Your task to perform on an android device: set the stopwatch Image 0: 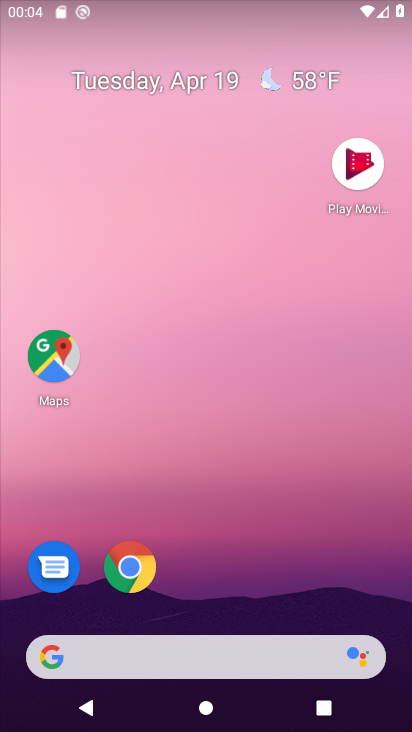
Step 0: drag from (192, 582) to (220, 175)
Your task to perform on an android device: set the stopwatch Image 1: 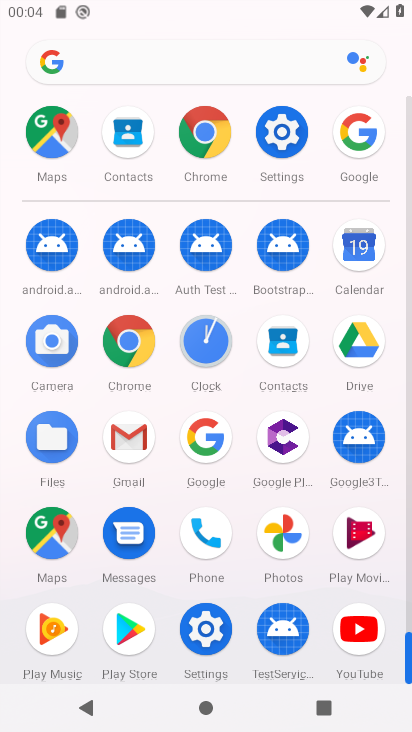
Step 1: click (203, 624)
Your task to perform on an android device: set the stopwatch Image 2: 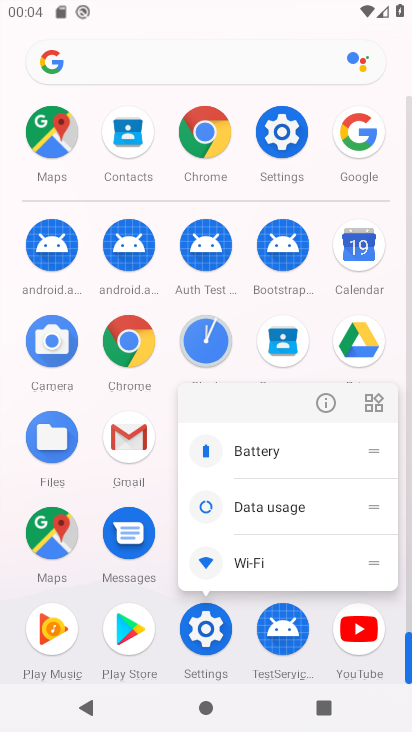
Step 2: click (211, 328)
Your task to perform on an android device: set the stopwatch Image 3: 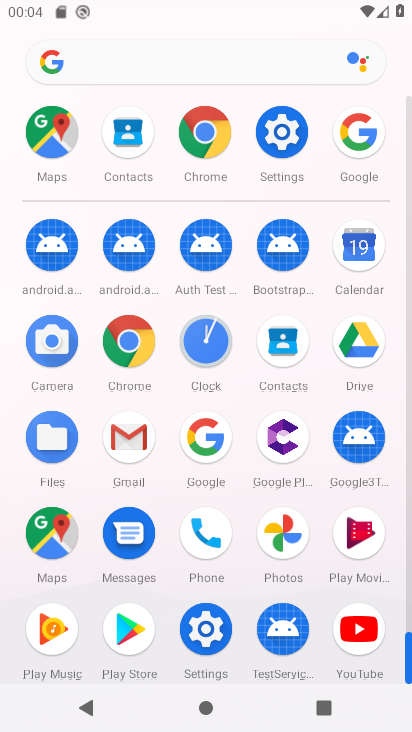
Step 3: click (202, 341)
Your task to perform on an android device: set the stopwatch Image 4: 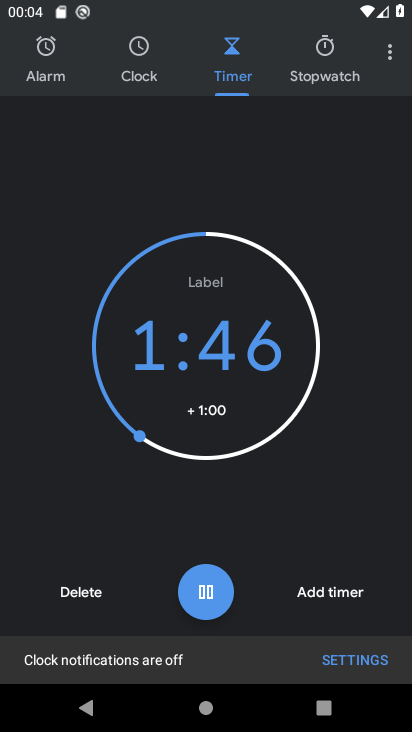
Step 4: click (323, 54)
Your task to perform on an android device: set the stopwatch Image 5: 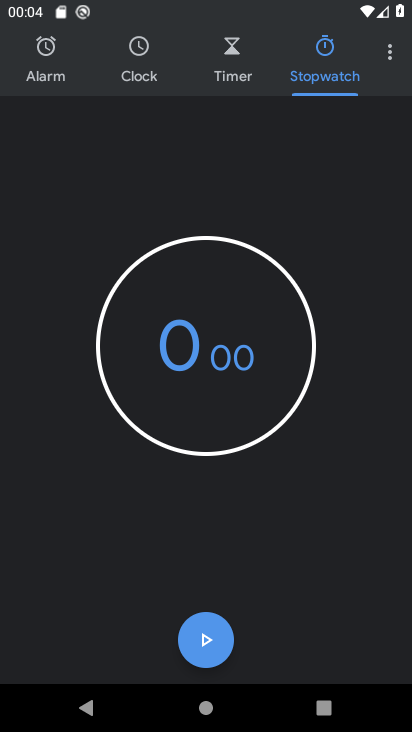
Step 5: click (200, 641)
Your task to perform on an android device: set the stopwatch Image 6: 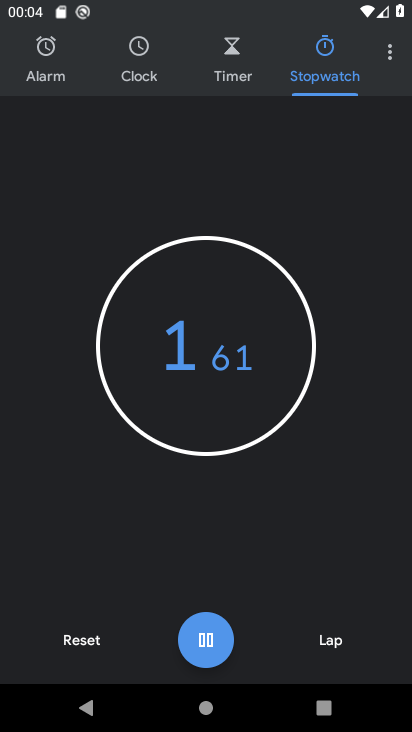
Step 6: task complete